Your task to perform on an android device: turn off priority inbox in the gmail app Image 0: 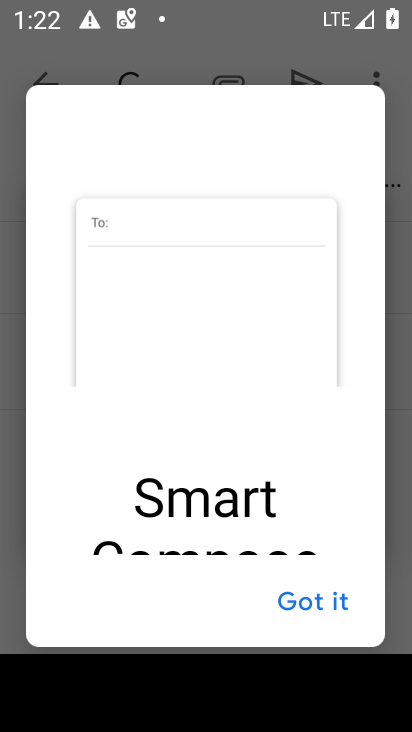
Step 0: press home button
Your task to perform on an android device: turn off priority inbox in the gmail app Image 1: 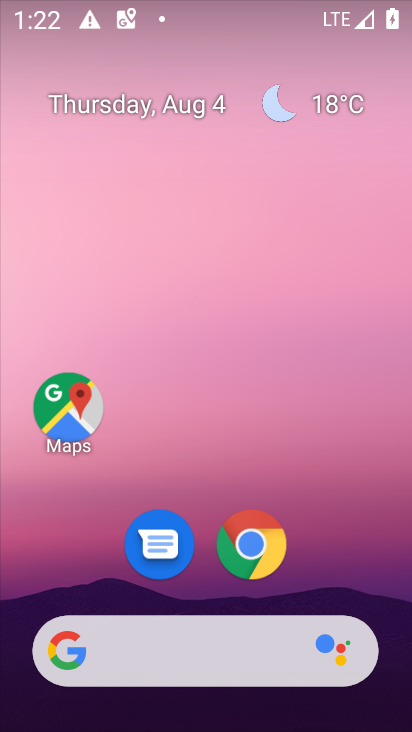
Step 1: drag from (396, 718) to (266, 44)
Your task to perform on an android device: turn off priority inbox in the gmail app Image 2: 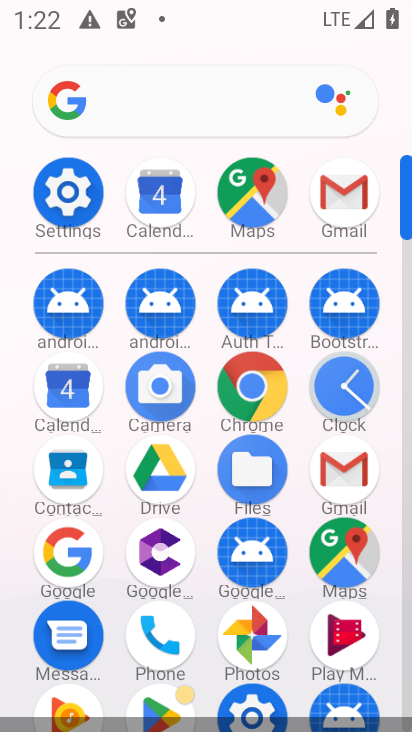
Step 2: click (324, 195)
Your task to perform on an android device: turn off priority inbox in the gmail app Image 3: 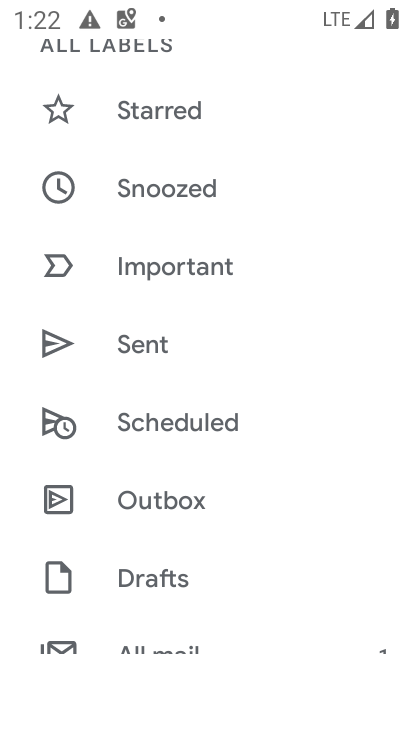
Step 3: drag from (272, 183) to (281, 79)
Your task to perform on an android device: turn off priority inbox in the gmail app Image 4: 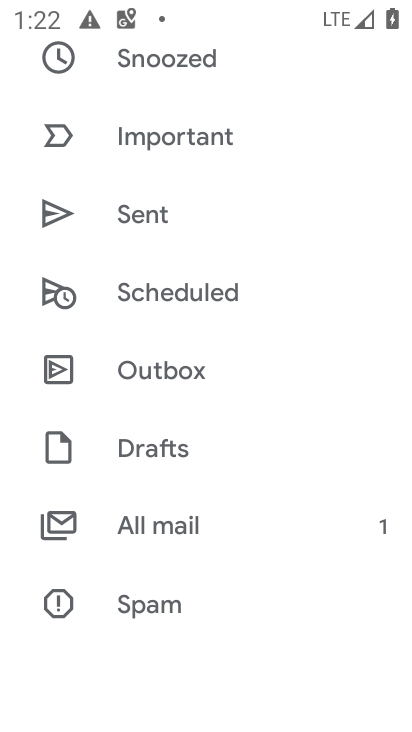
Step 4: drag from (246, 607) to (244, 175)
Your task to perform on an android device: turn off priority inbox in the gmail app Image 5: 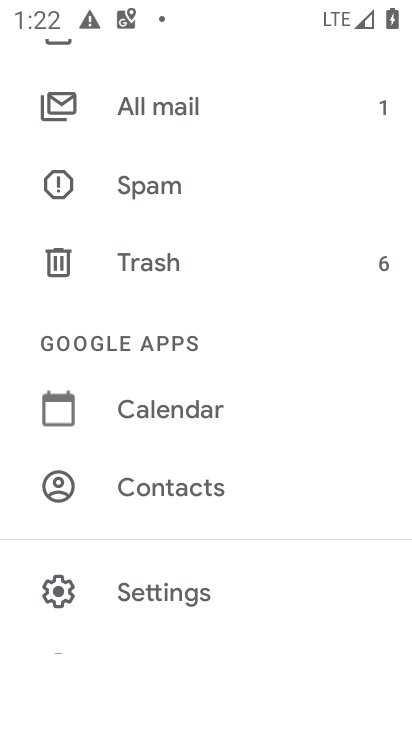
Step 5: click (118, 593)
Your task to perform on an android device: turn off priority inbox in the gmail app Image 6: 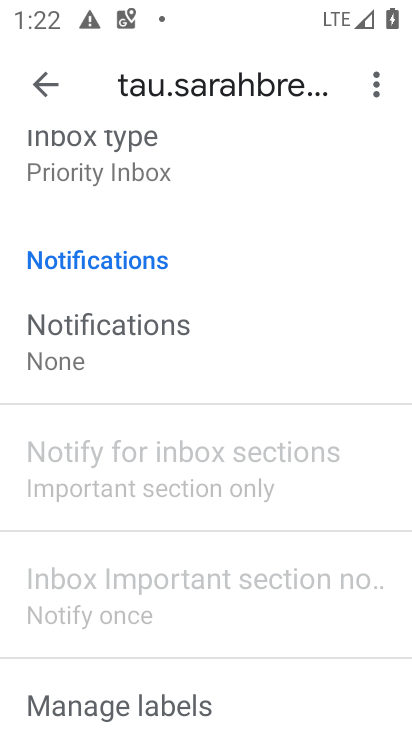
Step 6: click (98, 171)
Your task to perform on an android device: turn off priority inbox in the gmail app Image 7: 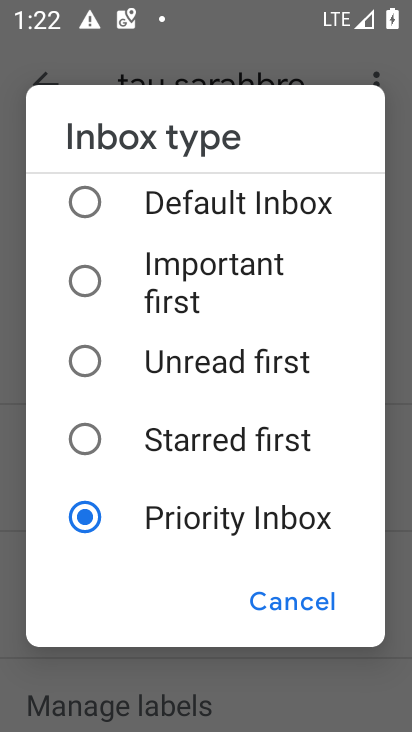
Step 7: click (83, 368)
Your task to perform on an android device: turn off priority inbox in the gmail app Image 8: 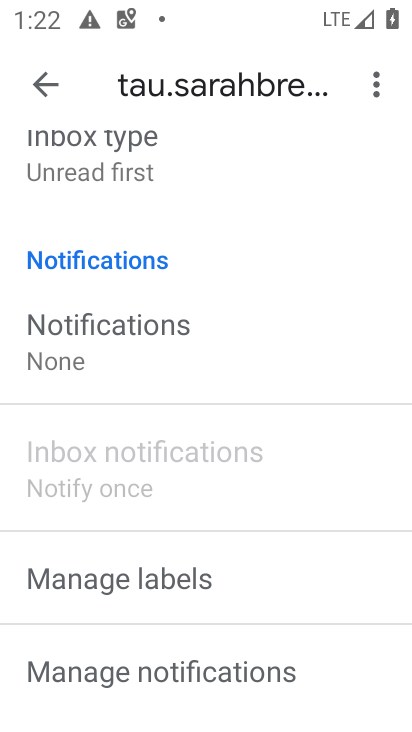
Step 8: task complete